Your task to perform on an android device: turn smart compose on in the gmail app Image 0: 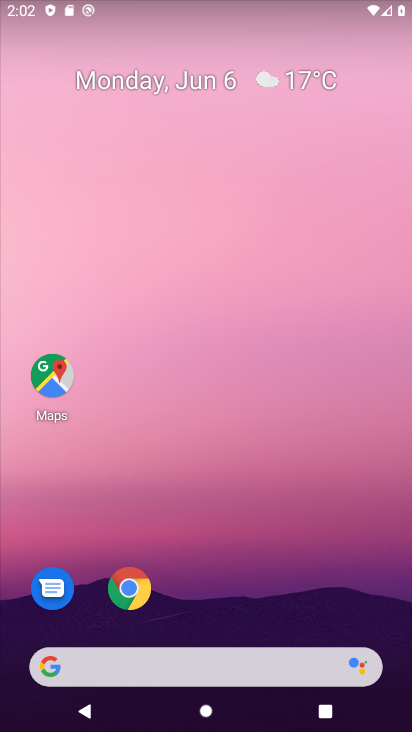
Step 0: drag from (218, 659) to (254, 305)
Your task to perform on an android device: turn smart compose on in the gmail app Image 1: 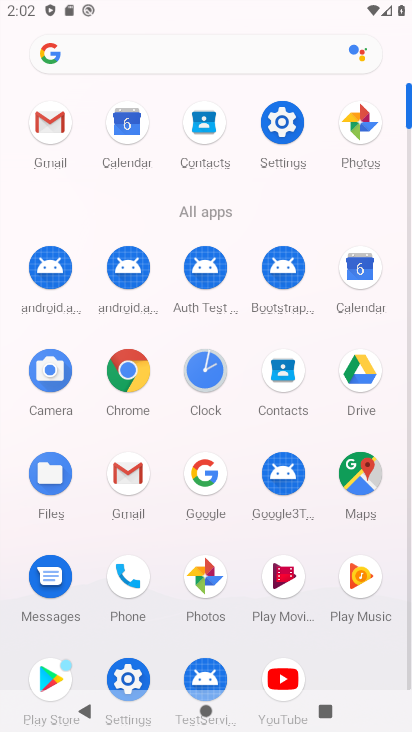
Step 1: click (135, 491)
Your task to perform on an android device: turn smart compose on in the gmail app Image 2: 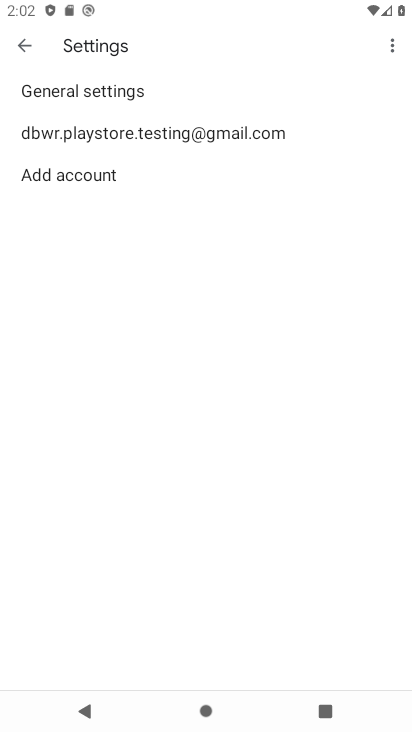
Step 2: click (70, 135)
Your task to perform on an android device: turn smart compose on in the gmail app Image 3: 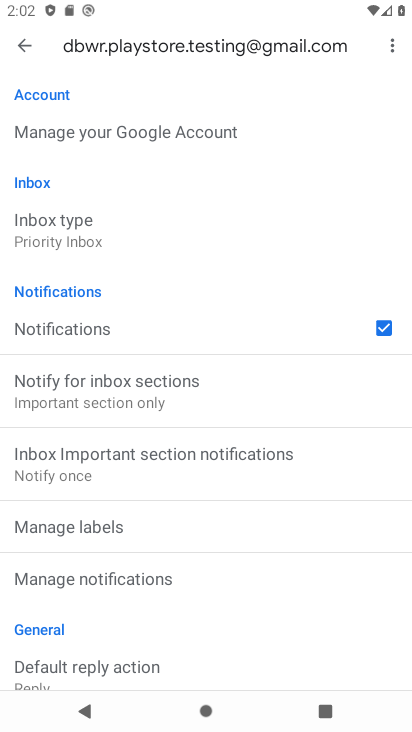
Step 3: task complete